Your task to perform on an android device: turn on wifi Image 0: 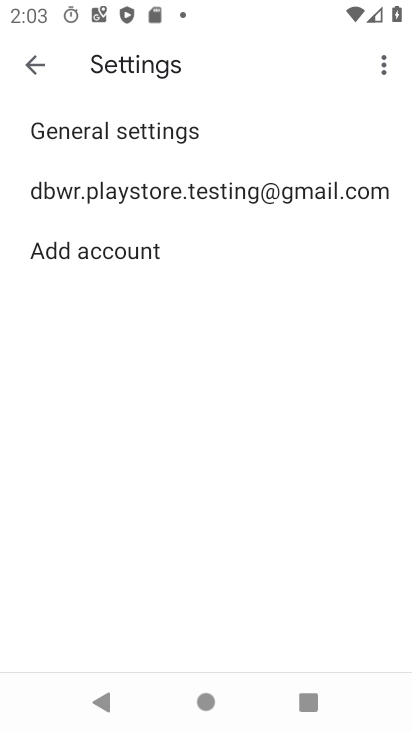
Step 0: press home button
Your task to perform on an android device: turn on wifi Image 1: 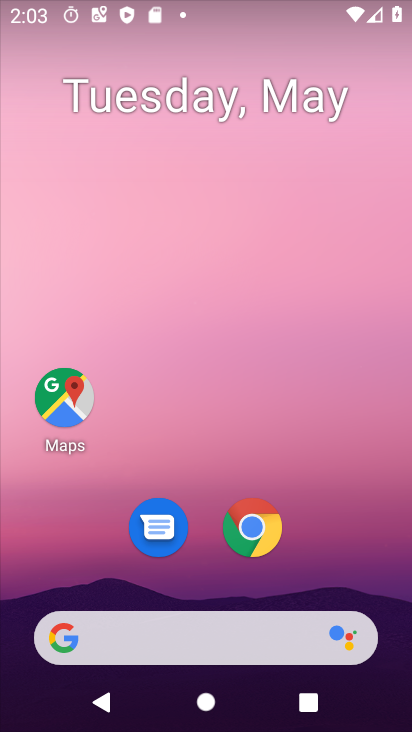
Step 1: drag from (216, 642) to (204, 211)
Your task to perform on an android device: turn on wifi Image 2: 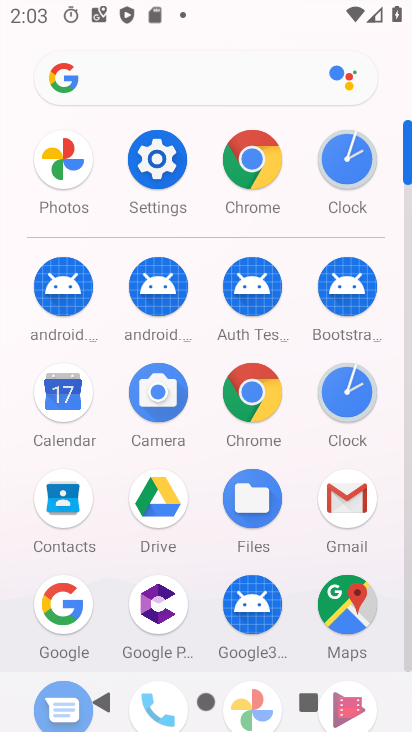
Step 2: click (159, 134)
Your task to perform on an android device: turn on wifi Image 3: 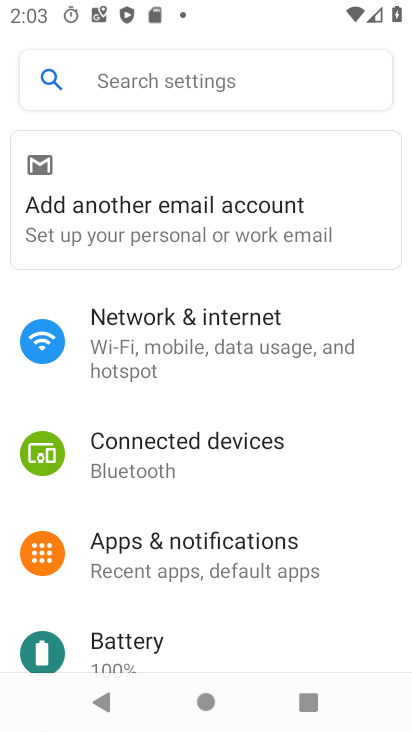
Step 3: click (151, 335)
Your task to perform on an android device: turn on wifi Image 4: 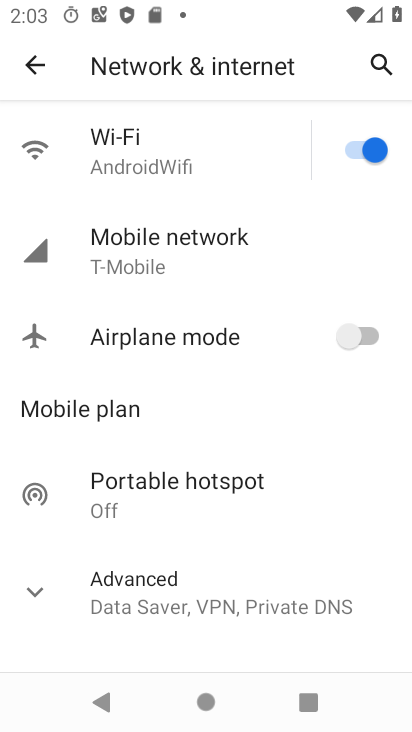
Step 4: click (341, 153)
Your task to perform on an android device: turn on wifi Image 5: 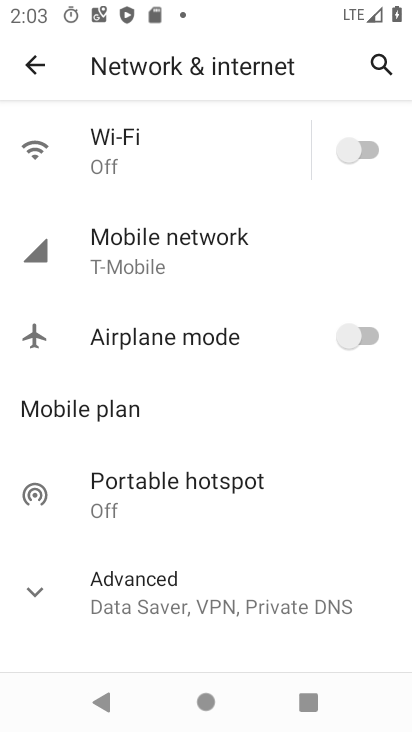
Step 5: click (340, 152)
Your task to perform on an android device: turn on wifi Image 6: 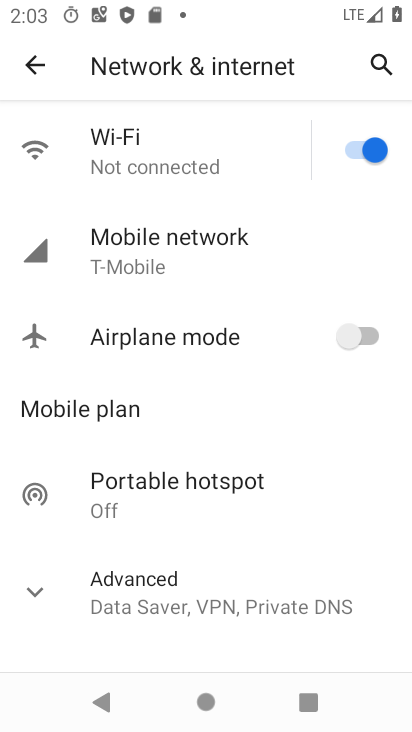
Step 6: task complete